Your task to perform on an android device: Go to ESPN.com Image 0: 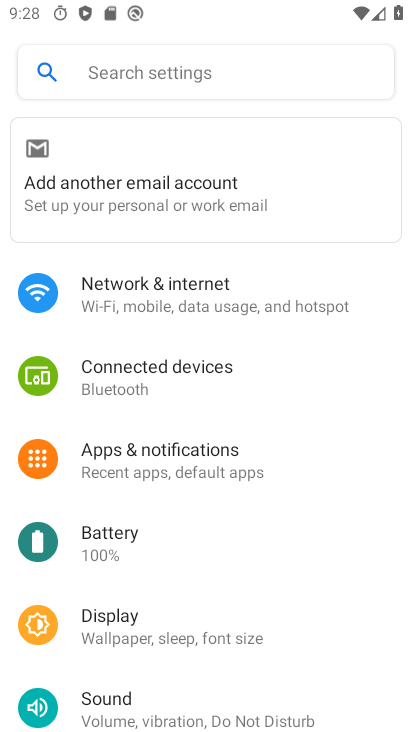
Step 0: press home button
Your task to perform on an android device: Go to ESPN.com Image 1: 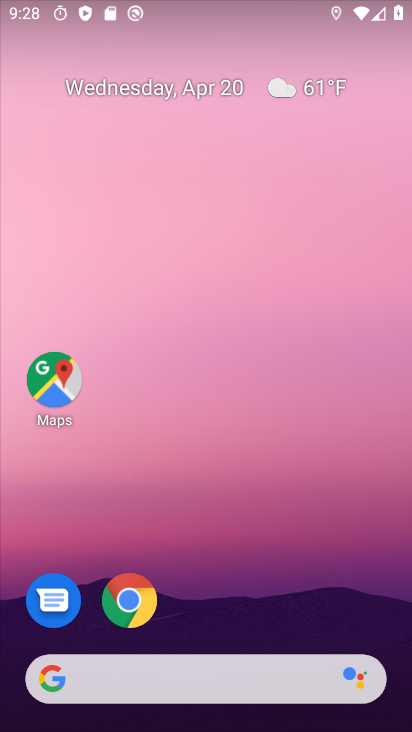
Step 1: click (126, 603)
Your task to perform on an android device: Go to ESPN.com Image 2: 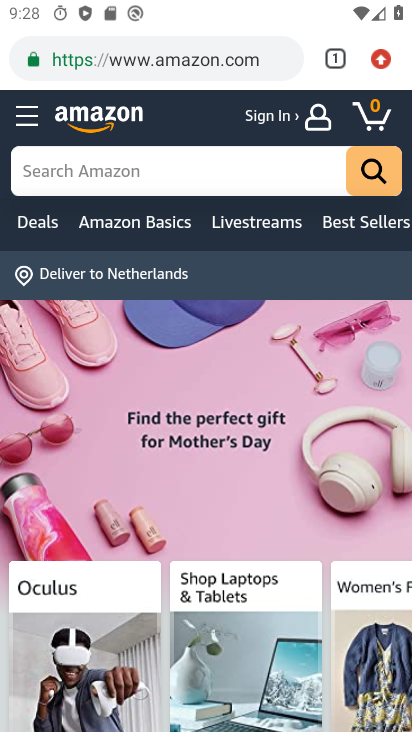
Step 2: click (192, 67)
Your task to perform on an android device: Go to ESPN.com Image 3: 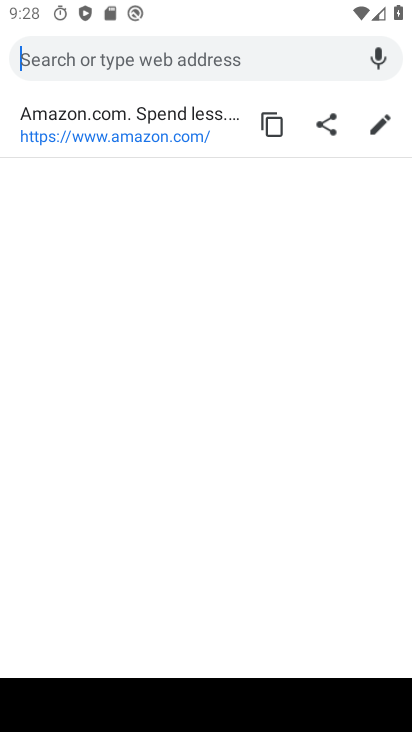
Step 3: click (159, 64)
Your task to perform on an android device: Go to ESPN.com Image 4: 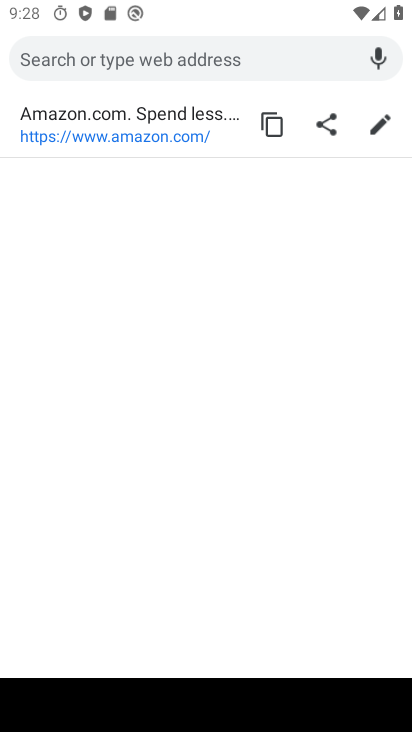
Step 4: type "espn.com"
Your task to perform on an android device: Go to ESPN.com Image 5: 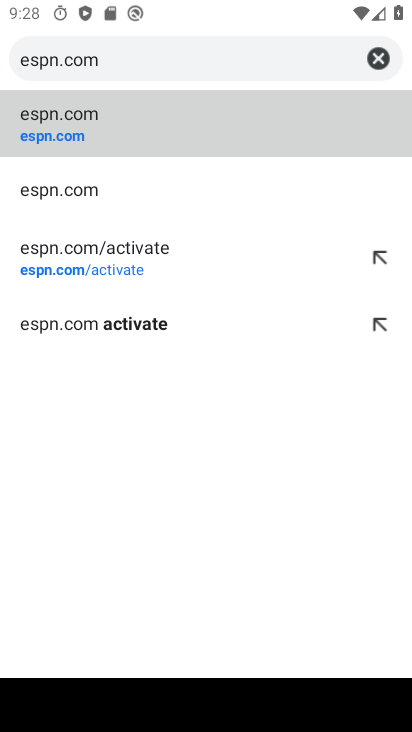
Step 5: click (55, 134)
Your task to perform on an android device: Go to ESPN.com Image 6: 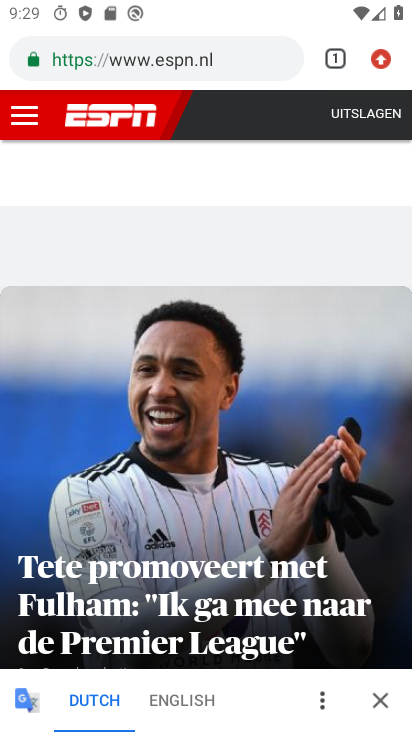
Step 6: task complete